Your task to perform on an android device: Open the calendar app, open the side menu, and click the "Day" option Image 0: 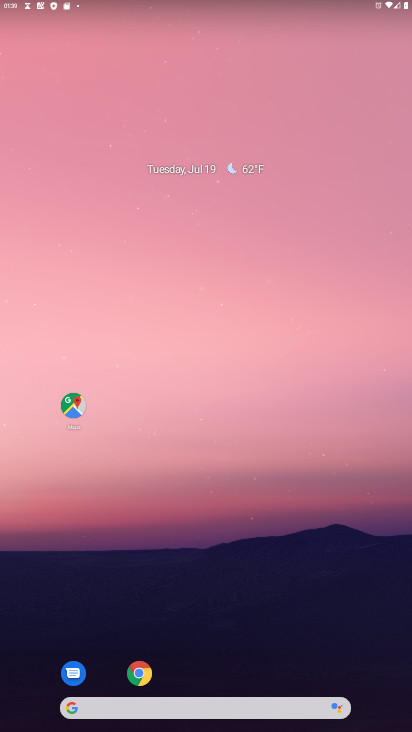
Step 0: drag from (309, 659) to (293, 136)
Your task to perform on an android device: Open the calendar app, open the side menu, and click the "Day" option Image 1: 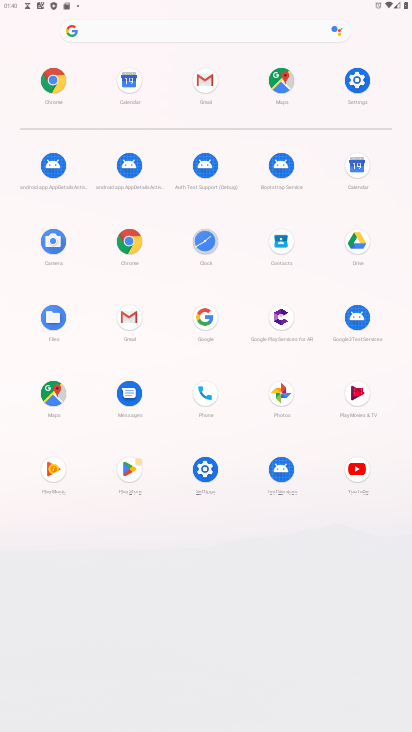
Step 1: click (354, 160)
Your task to perform on an android device: Open the calendar app, open the side menu, and click the "Day" option Image 2: 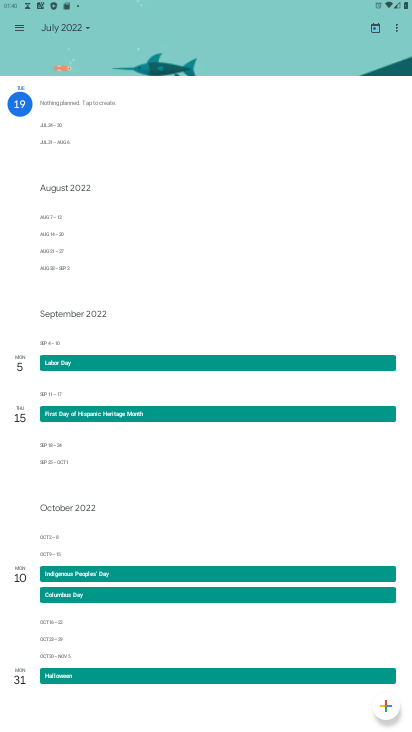
Step 2: click (27, 29)
Your task to perform on an android device: Open the calendar app, open the side menu, and click the "Day" option Image 3: 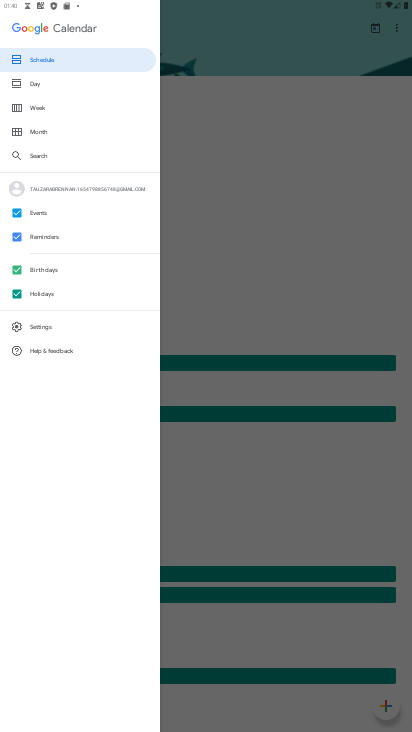
Step 3: click (30, 85)
Your task to perform on an android device: Open the calendar app, open the side menu, and click the "Day" option Image 4: 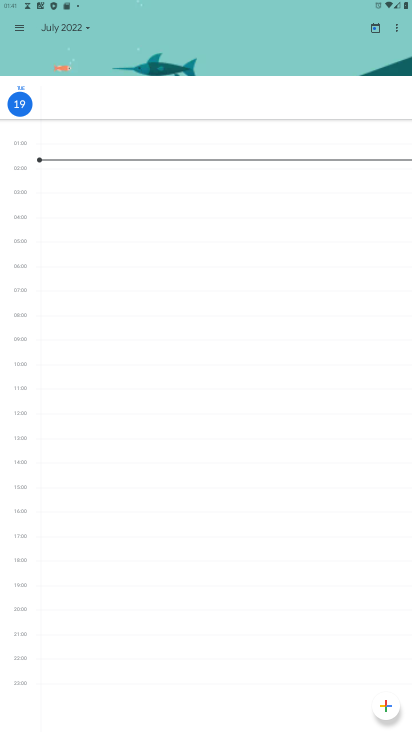
Step 4: click (16, 31)
Your task to perform on an android device: Open the calendar app, open the side menu, and click the "Day" option Image 5: 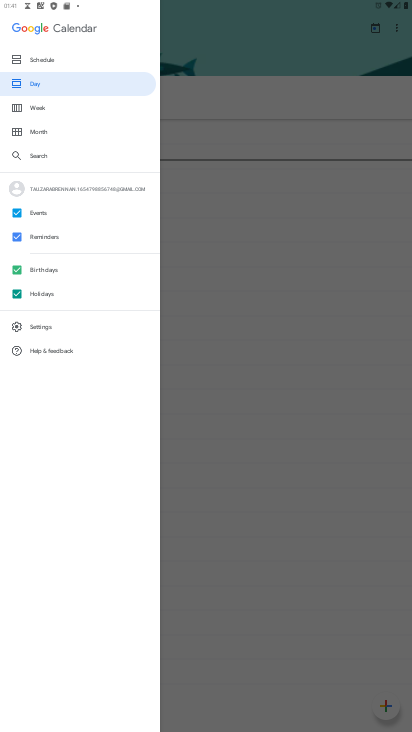
Step 5: task complete